Your task to perform on an android device: choose inbox layout in the gmail app Image 0: 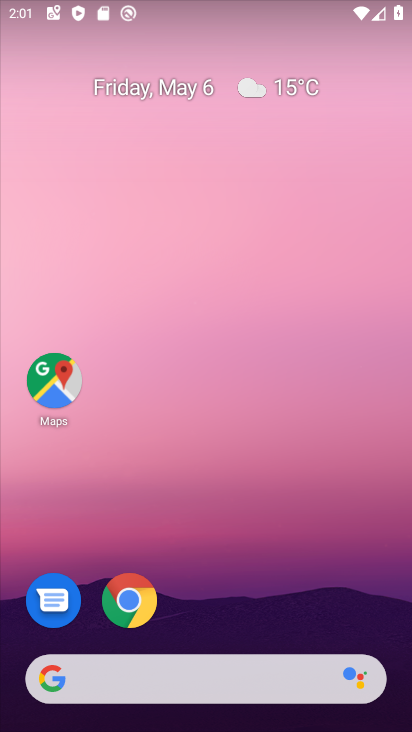
Step 0: drag from (306, 606) to (243, 98)
Your task to perform on an android device: choose inbox layout in the gmail app Image 1: 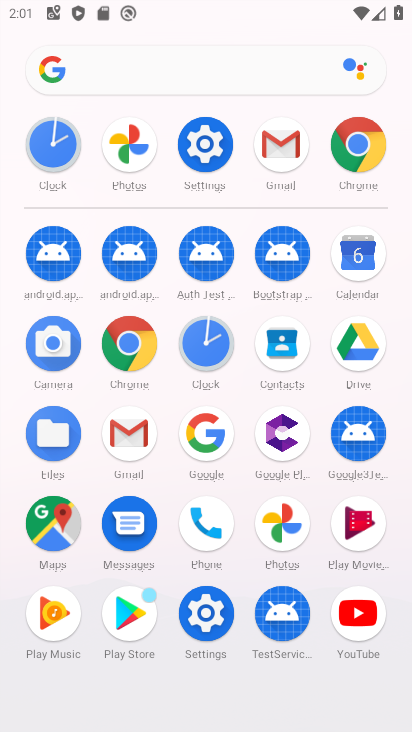
Step 1: click (130, 436)
Your task to perform on an android device: choose inbox layout in the gmail app Image 2: 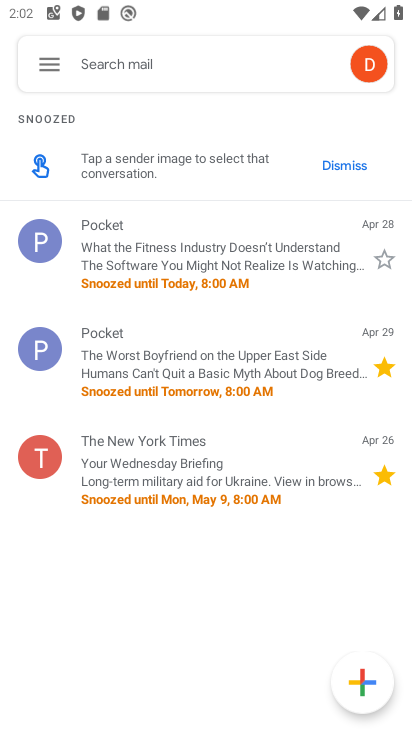
Step 2: task complete